Your task to perform on an android device: Open battery settings Image 0: 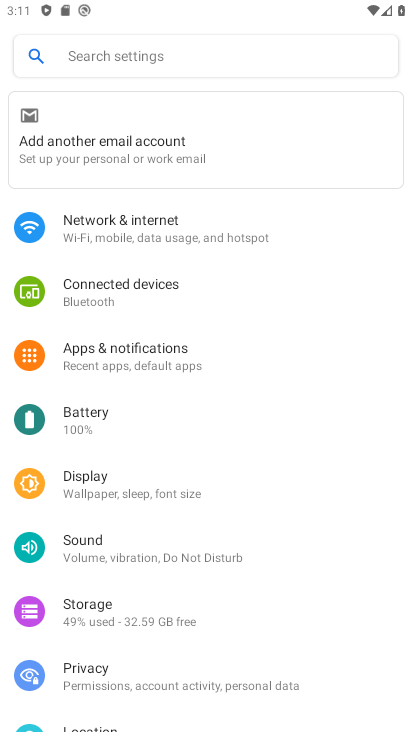
Step 0: click (129, 422)
Your task to perform on an android device: Open battery settings Image 1: 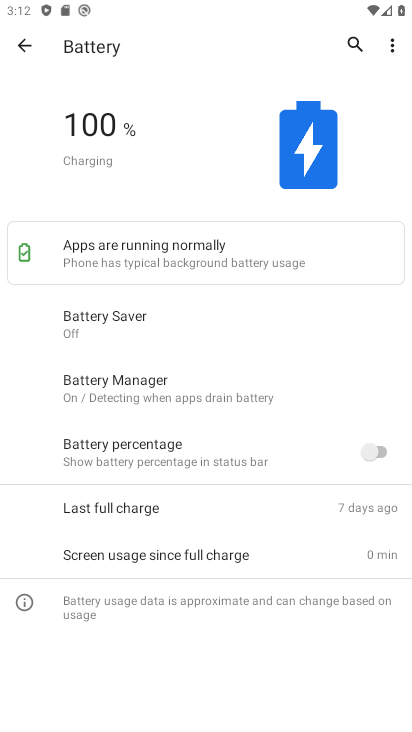
Step 1: task complete